Your task to perform on an android device: delete a single message in the gmail app Image 0: 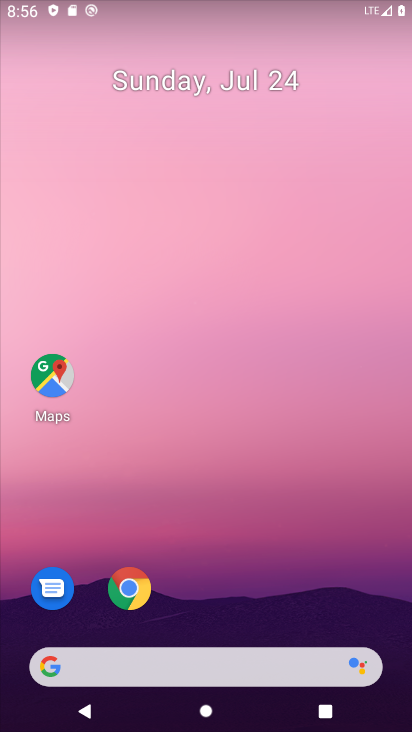
Step 0: drag from (160, 596) to (198, 38)
Your task to perform on an android device: delete a single message in the gmail app Image 1: 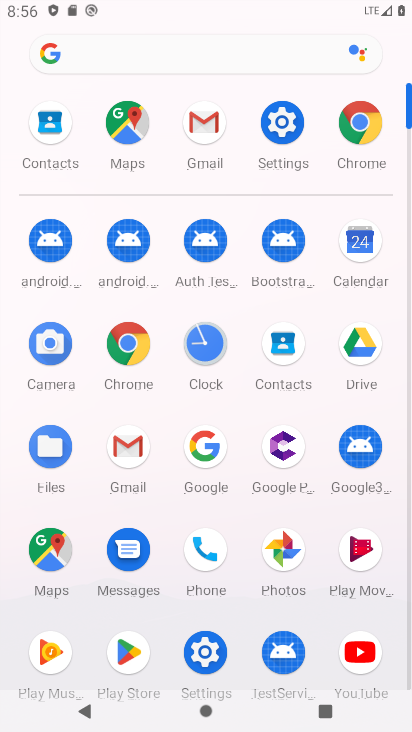
Step 1: click (213, 108)
Your task to perform on an android device: delete a single message in the gmail app Image 2: 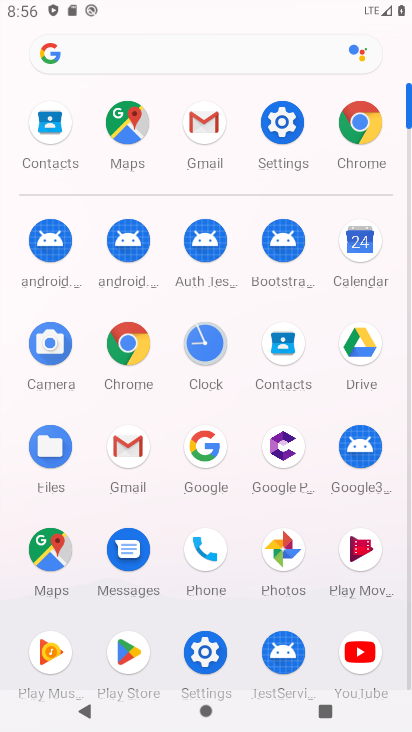
Step 2: click (213, 108)
Your task to perform on an android device: delete a single message in the gmail app Image 3: 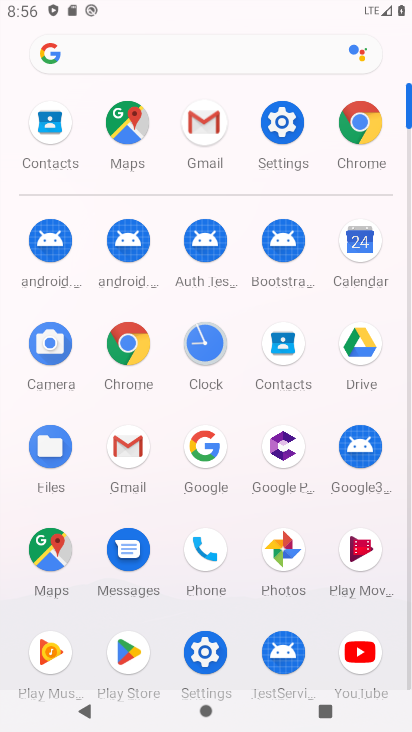
Step 3: click (213, 108)
Your task to perform on an android device: delete a single message in the gmail app Image 4: 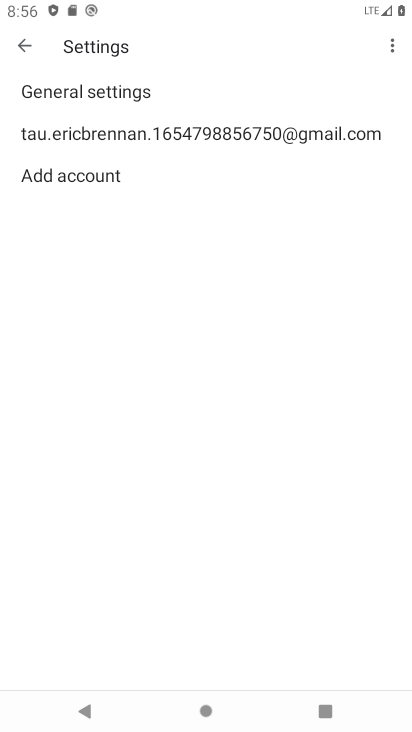
Step 4: click (234, 131)
Your task to perform on an android device: delete a single message in the gmail app Image 5: 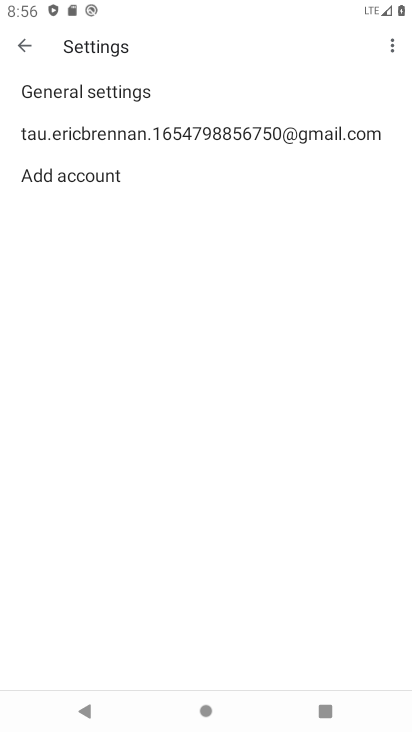
Step 5: click (234, 131)
Your task to perform on an android device: delete a single message in the gmail app Image 6: 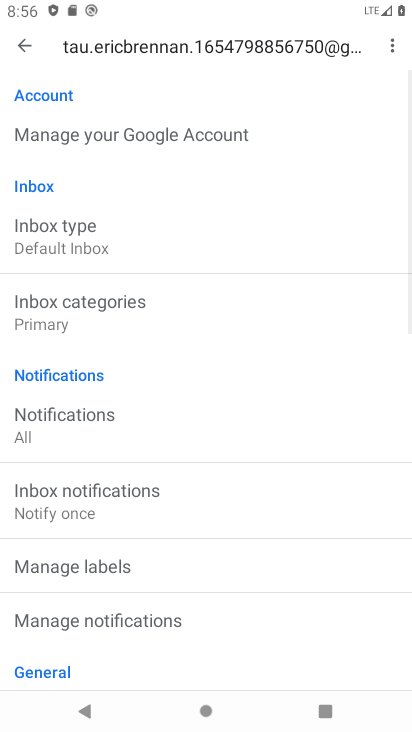
Step 6: click (17, 35)
Your task to perform on an android device: delete a single message in the gmail app Image 7: 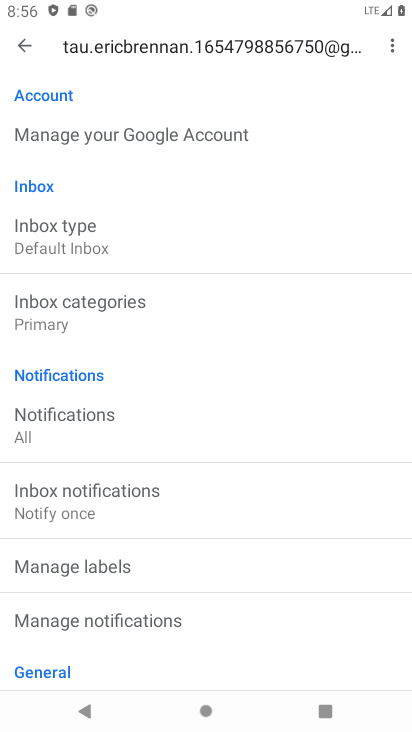
Step 7: click (17, 35)
Your task to perform on an android device: delete a single message in the gmail app Image 8: 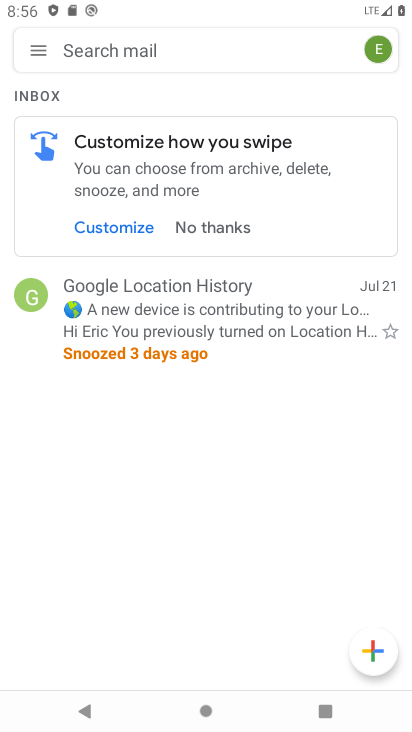
Step 8: click (239, 319)
Your task to perform on an android device: delete a single message in the gmail app Image 9: 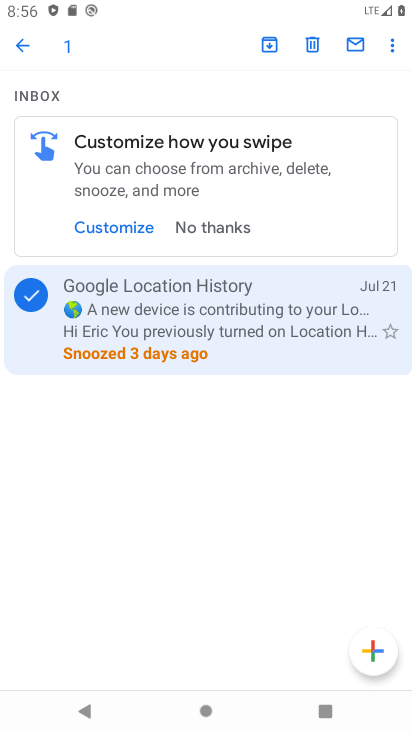
Step 9: click (306, 38)
Your task to perform on an android device: delete a single message in the gmail app Image 10: 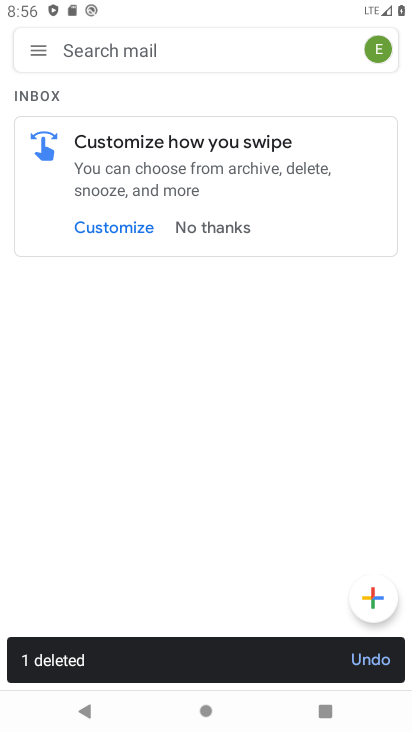
Step 10: task complete